Your task to perform on an android device: Go to eBay Image 0: 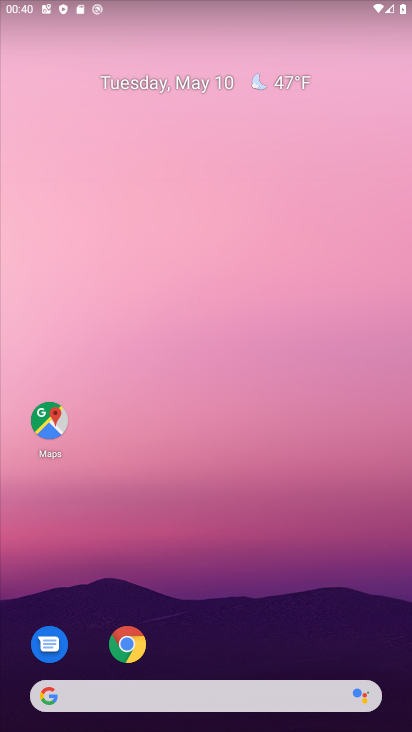
Step 0: click (123, 642)
Your task to perform on an android device: Go to eBay Image 1: 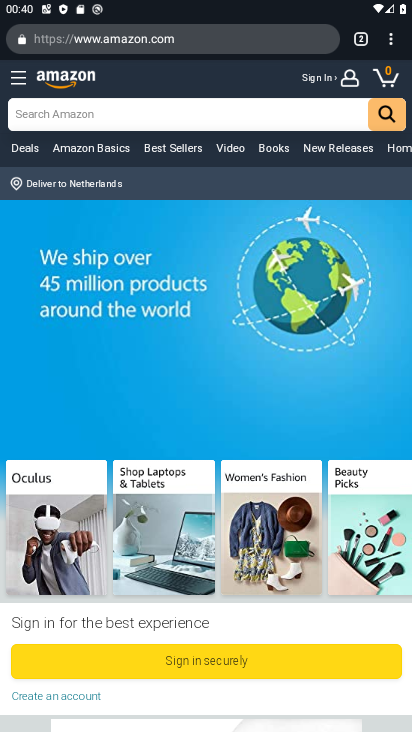
Step 1: click (361, 43)
Your task to perform on an android device: Go to eBay Image 2: 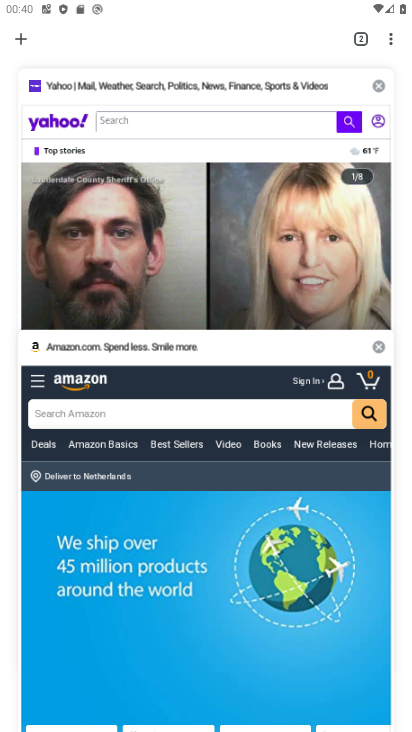
Step 2: click (14, 36)
Your task to perform on an android device: Go to eBay Image 3: 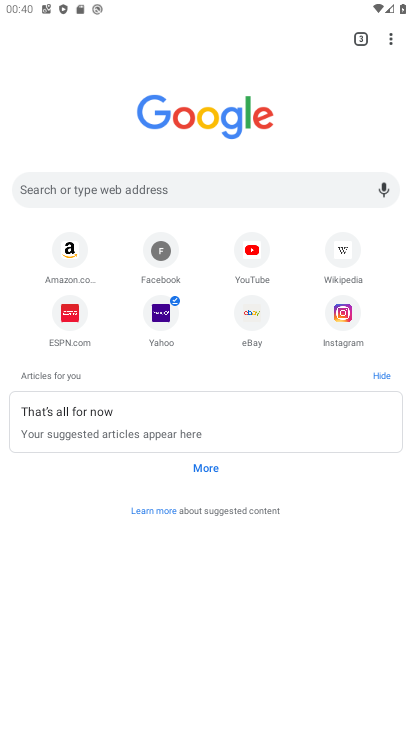
Step 3: click (148, 191)
Your task to perform on an android device: Go to eBay Image 4: 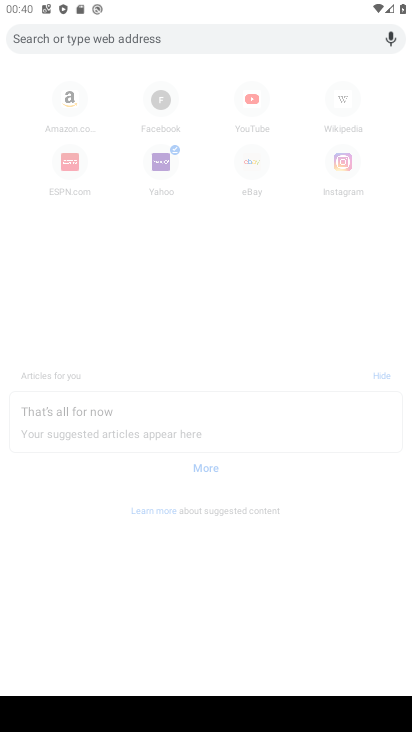
Step 4: click (116, 41)
Your task to perform on an android device: Go to eBay Image 5: 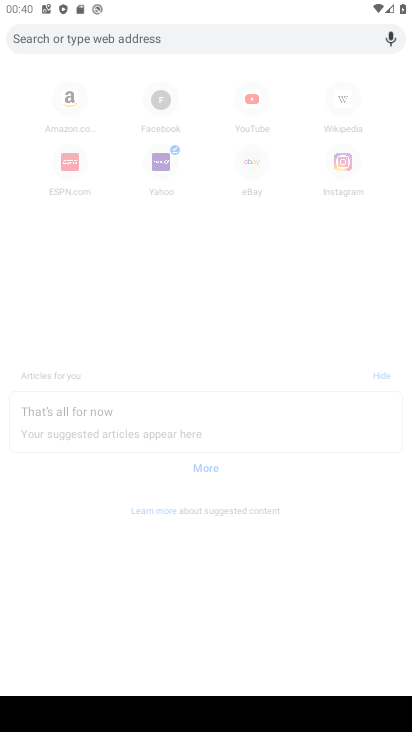
Step 5: type "ebay"
Your task to perform on an android device: Go to eBay Image 6: 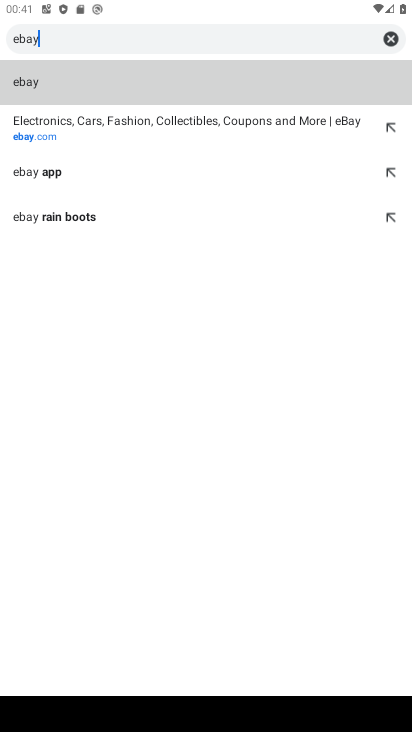
Step 6: click (57, 78)
Your task to perform on an android device: Go to eBay Image 7: 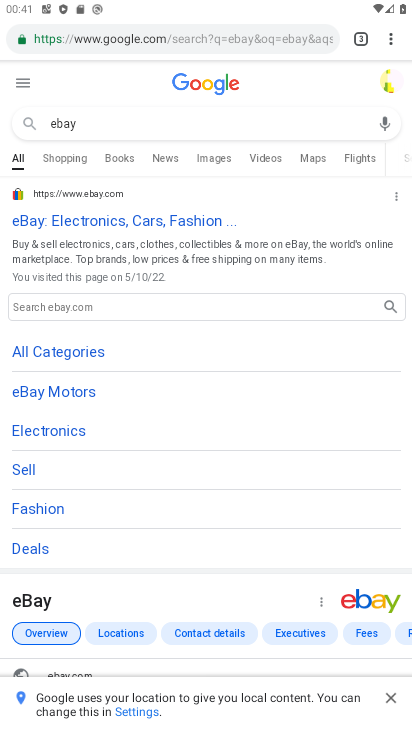
Step 7: click (85, 224)
Your task to perform on an android device: Go to eBay Image 8: 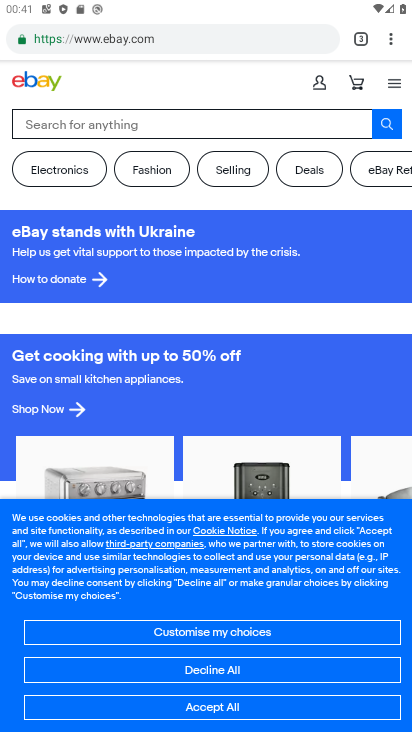
Step 8: task complete